Your task to perform on an android device: allow cookies in the chrome app Image 0: 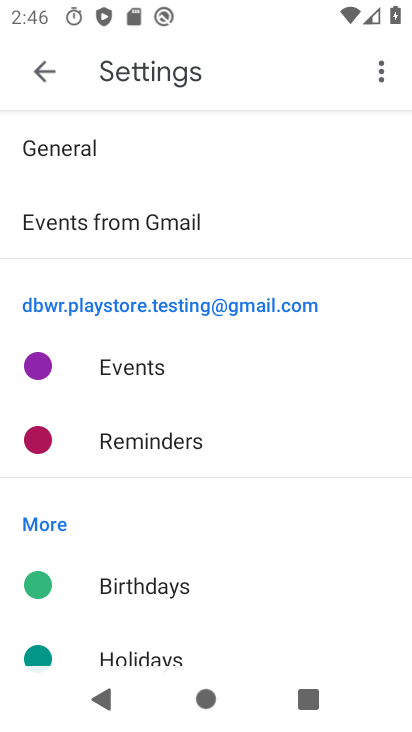
Step 0: press home button
Your task to perform on an android device: allow cookies in the chrome app Image 1: 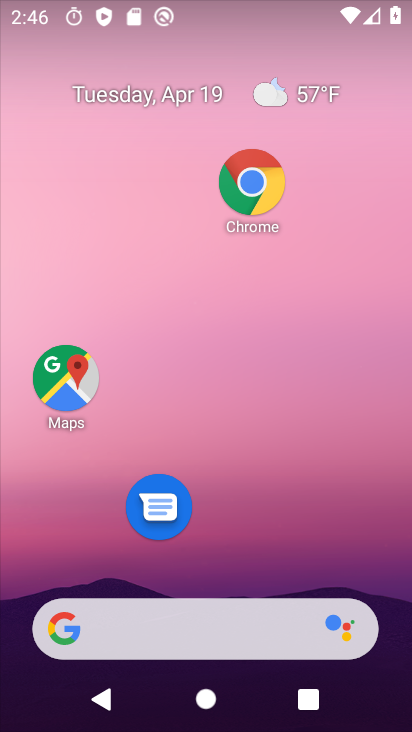
Step 1: click (263, 187)
Your task to perform on an android device: allow cookies in the chrome app Image 2: 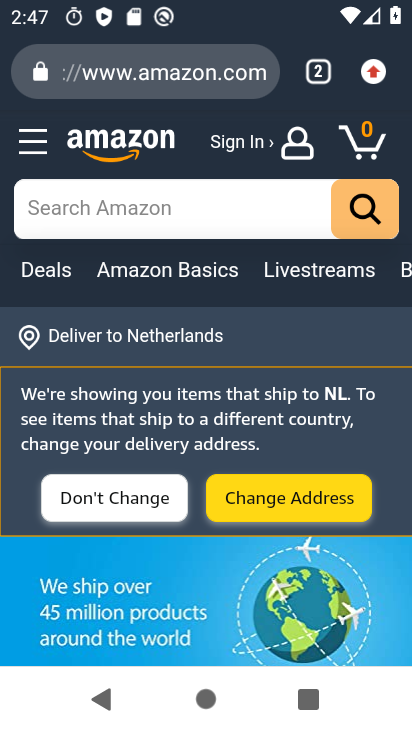
Step 2: click (378, 88)
Your task to perform on an android device: allow cookies in the chrome app Image 3: 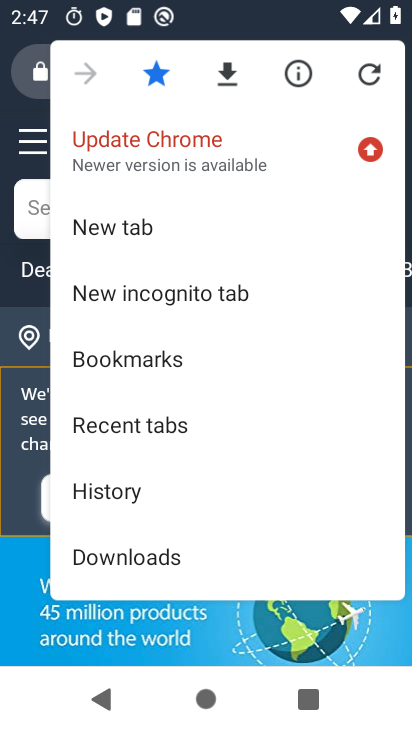
Step 3: drag from (278, 468) to (284, 187)
Your task to perform on an android device: allow cookies in the chrome app Image 4: 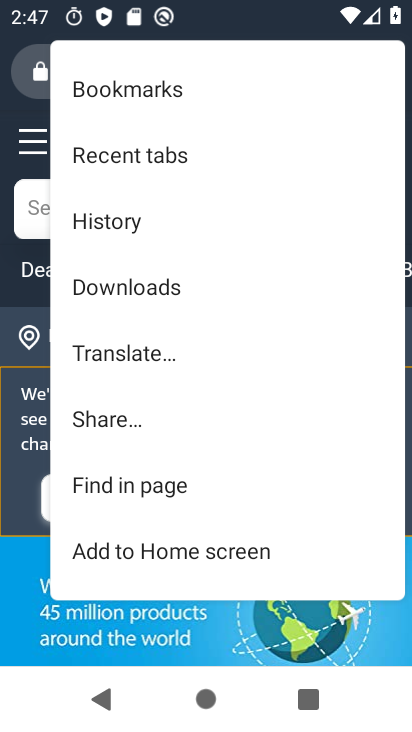
Step 4: drag from (167, 526) to (213, 180)
Your task to perform on an android device: allow cookies in the chrome app Image 5: 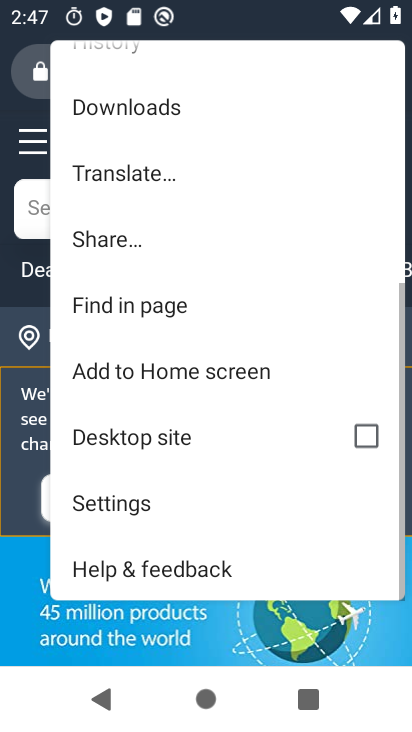
Step 5: click (209, 508)
Your task to perform on an android device: allow cookies in the chrome app Image 6: 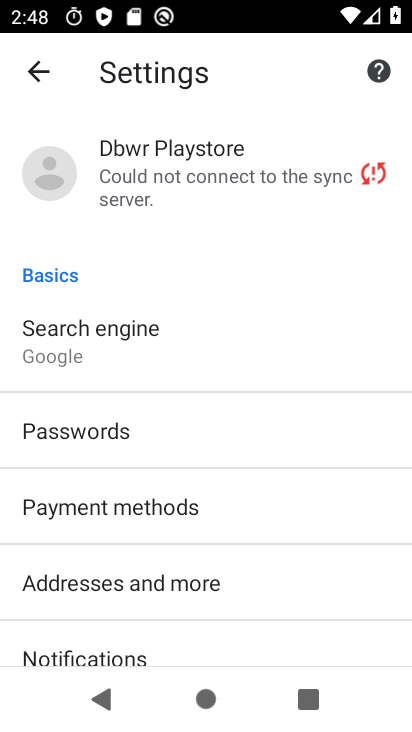
Step 6: drag from (242, 433) to (294, 136)
Your task to perform on an android device: allow cookies in the chrome app Image 7: 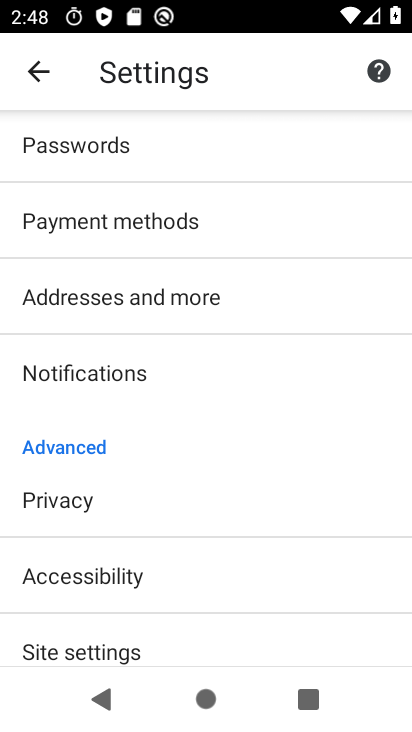
Step 7: click (136, 652)
Your task to perform on an android device: allow cookies in the chrome app Image 8: 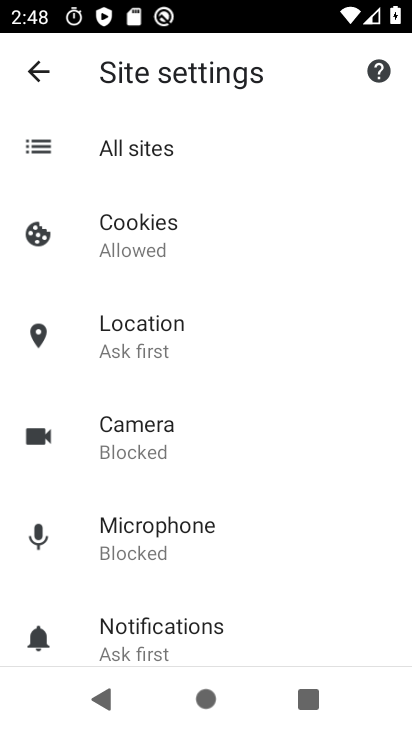
Step 8: drag from (229, 555) to (284, 295)
Your task to perform on an android device: allow cookies in the chrome app Image 9: 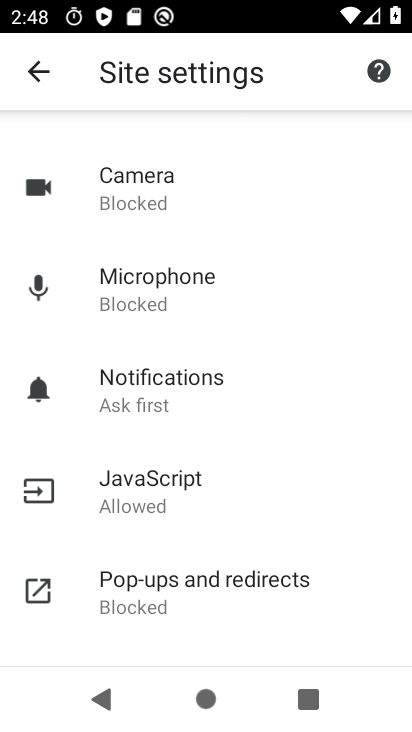
Step 9: drag from (255, 348) to (264, 687)
Your task to perform on an android device: allow cookies in the chrome app Image 10: 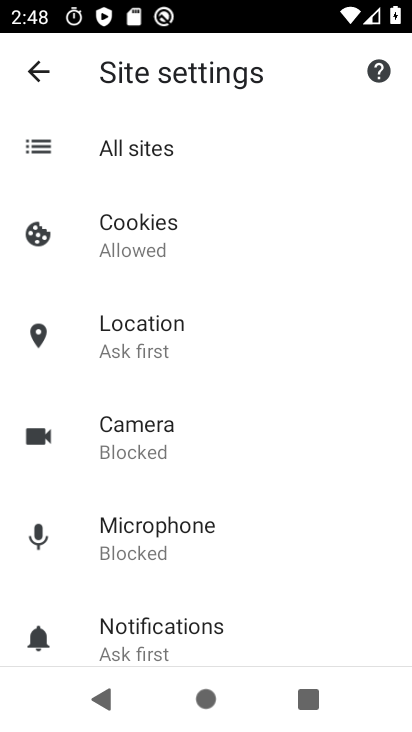
Step 10: click (236, 244)
Your task to perform on an android device: allow cookies in the chrome app Image 11: 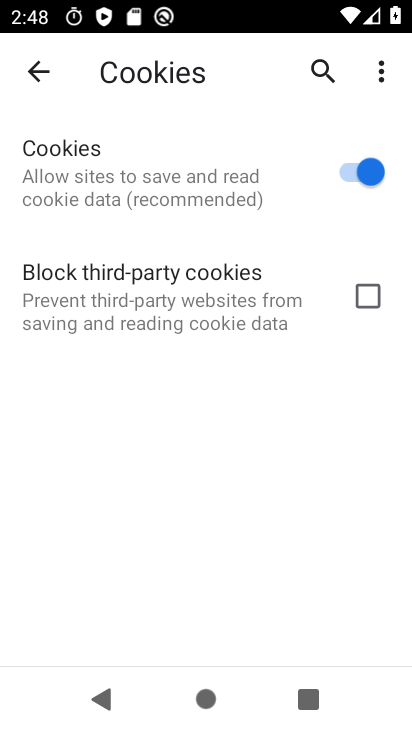
Step 11: task complete